Your task to perform on an android device: Go to display settings Image 0: 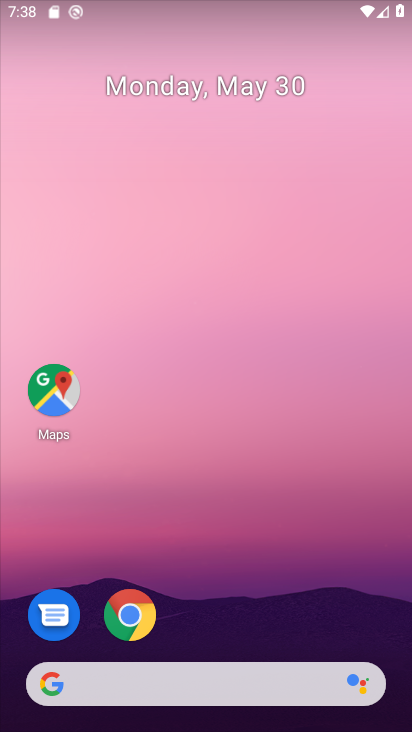
Step 0: drag from (109, 730) to (39, 26)
Your task to perform on an android device: Go to display settings Image 1: 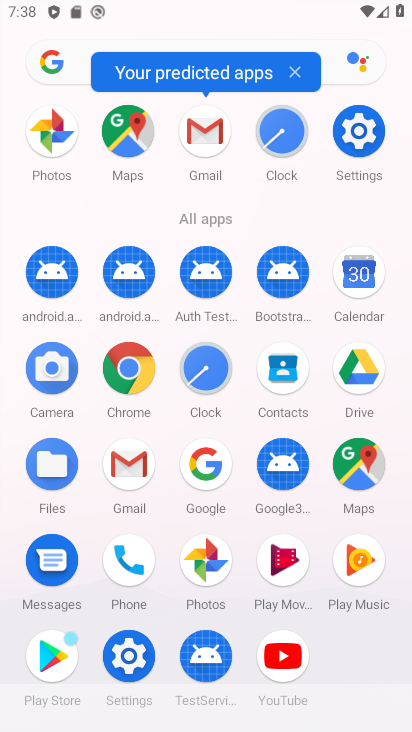
Step 1: click (371, 140)
Your task to perform on an android device: Go to display settings Image 2: 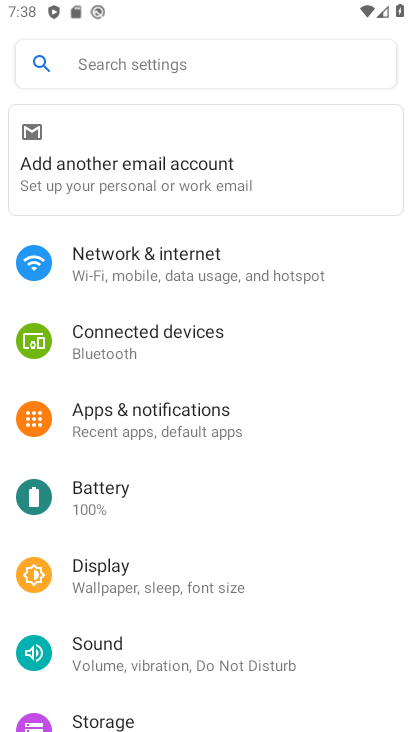
Step 2: click (166, 594)
Your task to perform on an android device: Go to display settings Image 3: 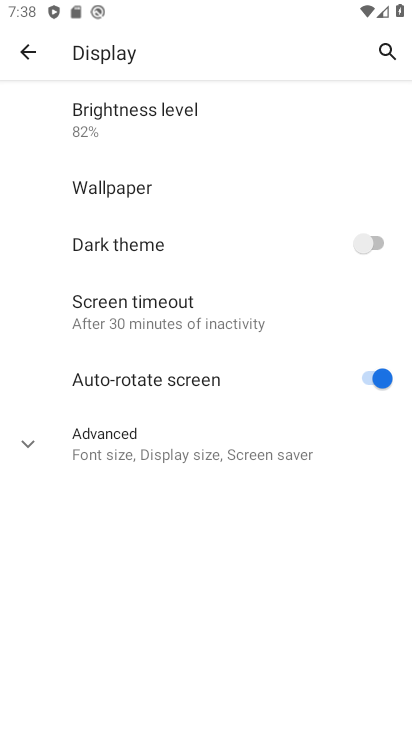
Step 3: task complete